Your task to perform on an android device: turn on improve location accuracy Image 0: 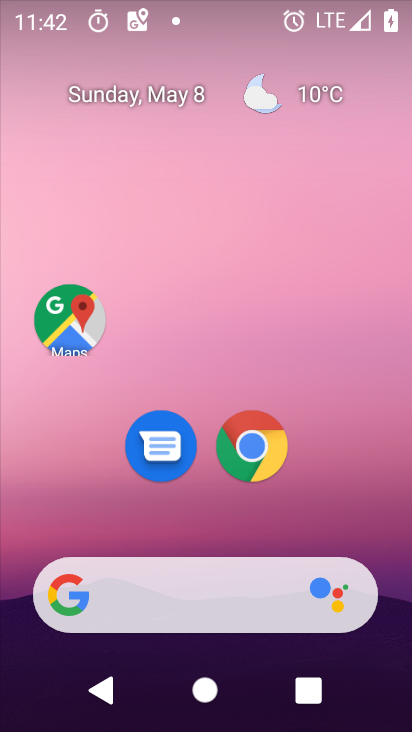
Step 0: drag from (376, 556) to (349, 1)
Your task to perform on an android device: turn on improve location accuracy Image 1: 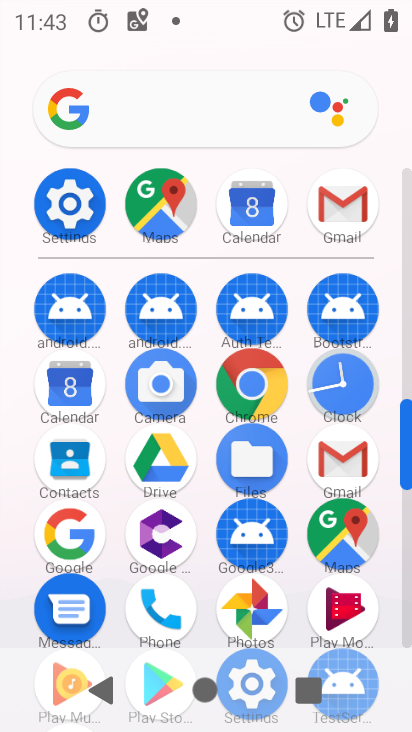
Step 1: click (72, 209)
Your task to perform on an android device: turn on improve location accuracy Image 2: 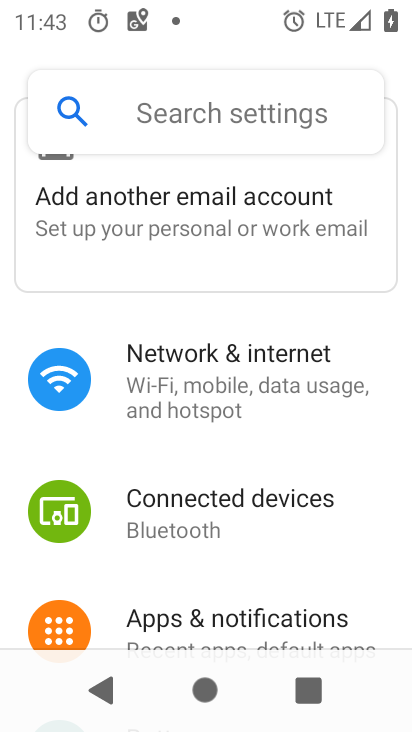
Step 2: drag from (369, 544) to (369, 145)
Your task to perform on an android device: turn on improve location accuracy Image 3: 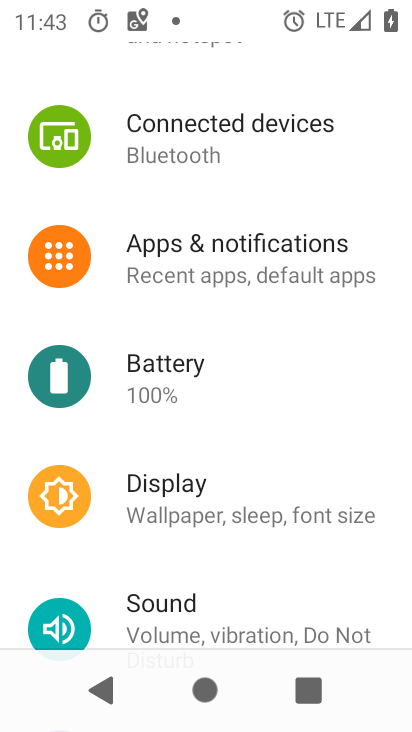
Step 3: drag from (366, 456) to (360, 176)
Your task to perform on an android device: turn on improve location accuracy Image 4: 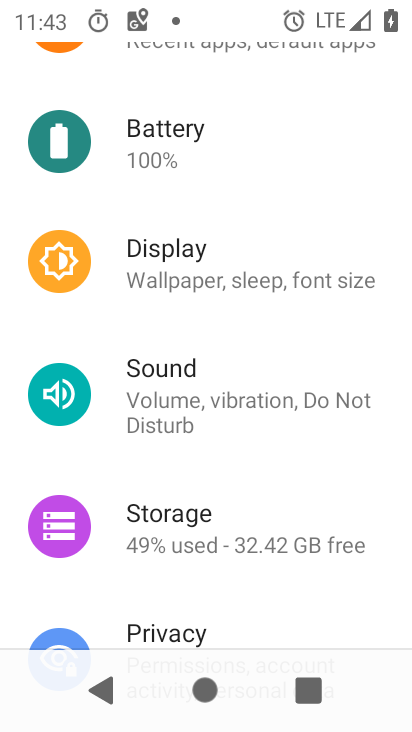
Step 4: drag from (297, 502) to (316, 181)
Your task to perform on an android device: turn on improve location accuracy Image 5: 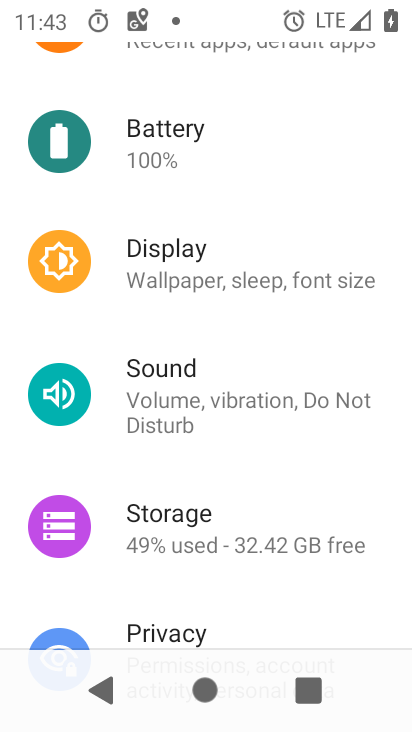
Step 5: drag from (274, 551) to (259, 205)
Your task to perform on an android device: turn on improve location accuracy Image 6: 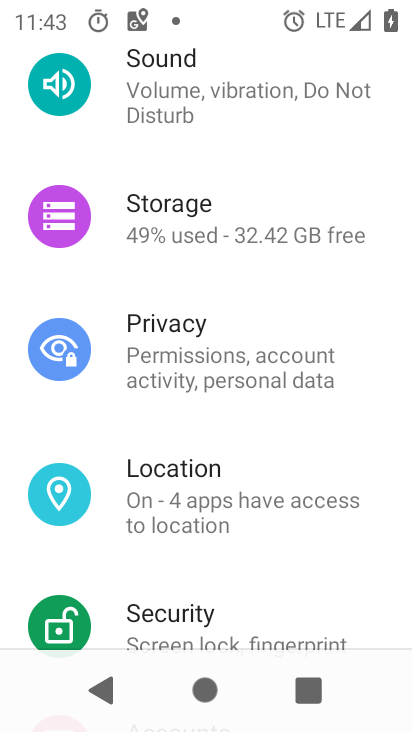
Step 6: drag from (249, 486) to (249, 246)
Your task to perform on an android device: turn on improve location accuracy Image 7: 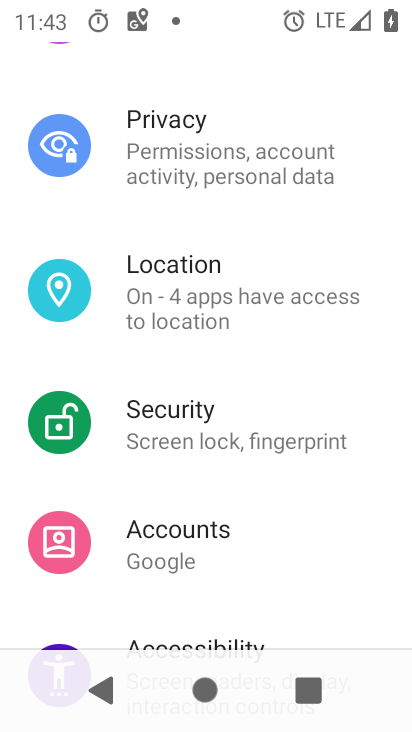
Step 7: click (181, 310)
Your task to perform on an android device: turn on improve location accuracy Image 8: 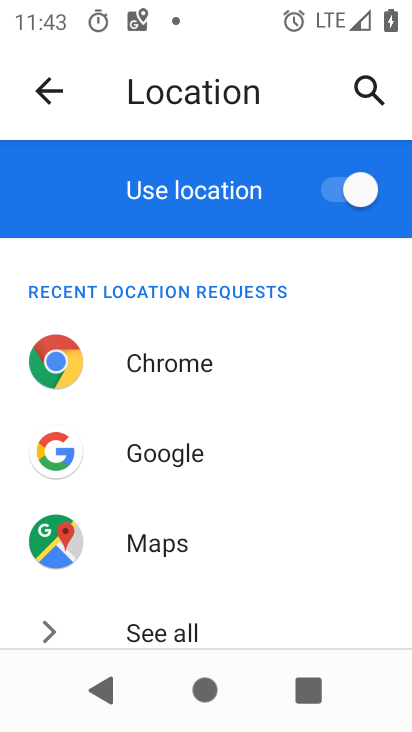
Step 8: drag from (287, 553) to (250, 282)
Your task to perform on an android device: turn on improve location accuracy Image 9: 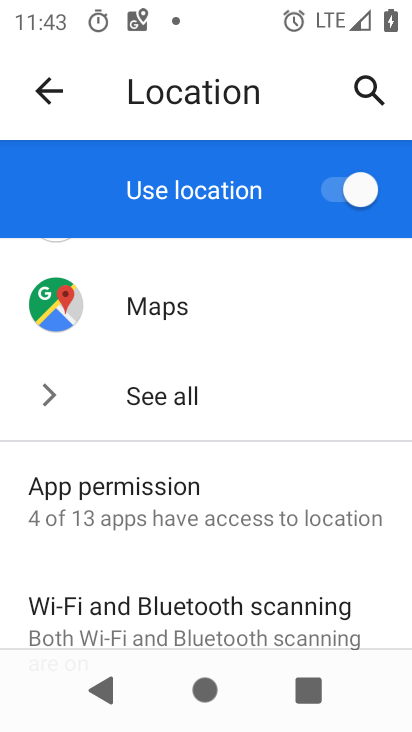
Step 9: drag from (223, 510) to (223, 129)
Your task to perform on an android device: turn on improve location accuracy Image 10: 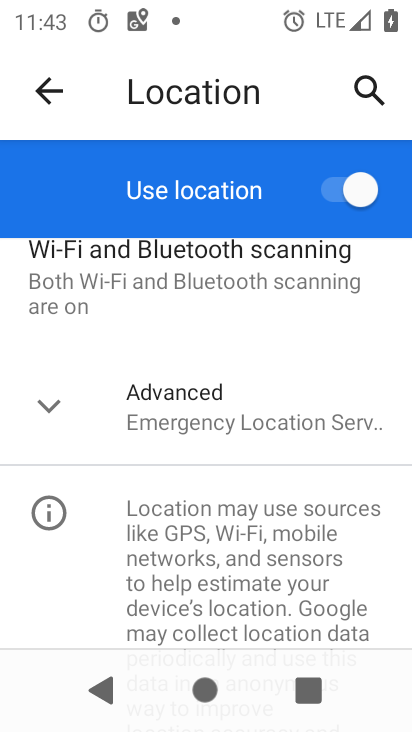
Step 10: drag from (207, 510) to (208, 267)
Your task to perform on an android device: turn on improve location accuracy Image 11: 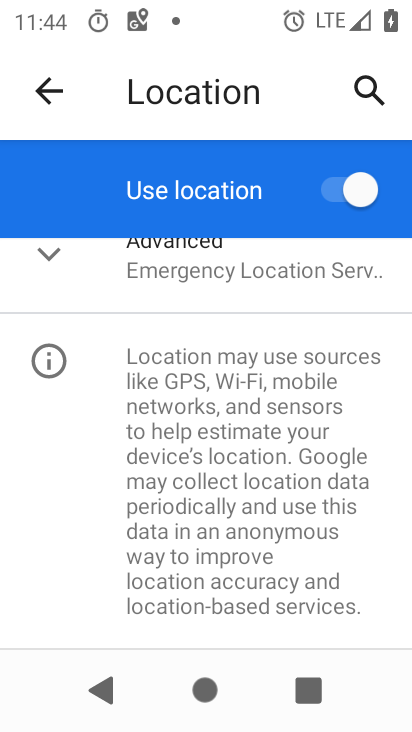
Step 11: drag from (207, 497) to (211, 143)
Your task to perform on an android device: turn on improve location accuracy Image 12: 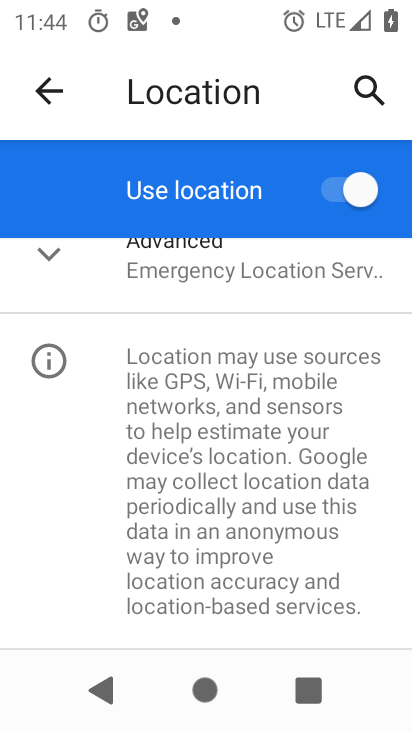
Step 12: click (53, 255)
Your task to perform on an android device: turn on improve location accuracy Image 13: 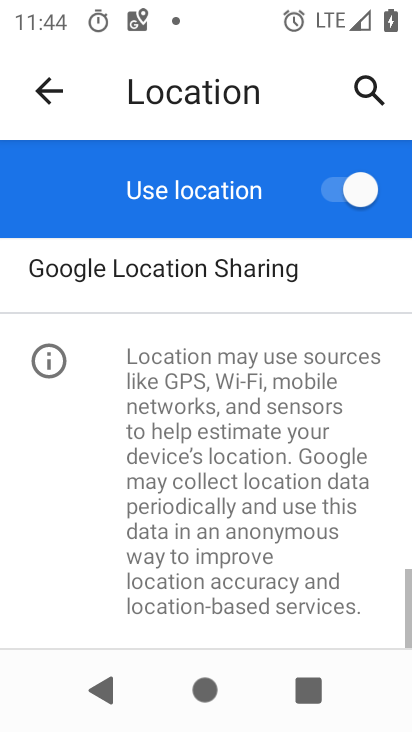
Step 13: drag from (133, 302) to (171, 643)
Your task to perform on an android device: turn on improve location accuracy Image 14: 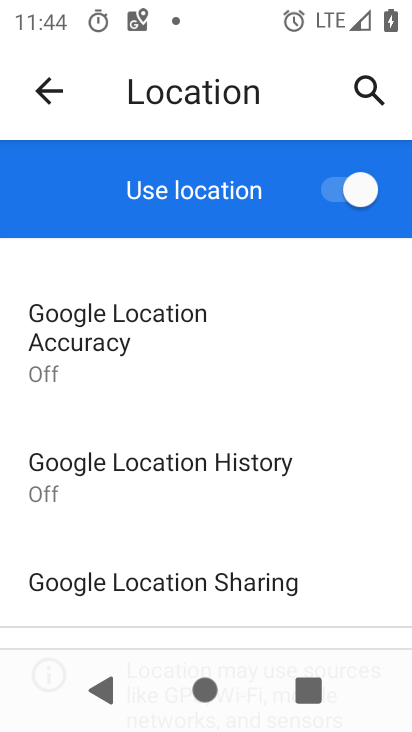
Step 14: click (72, 356)
Your task to perform on an android device: turn on improve location accuracy Image 15: 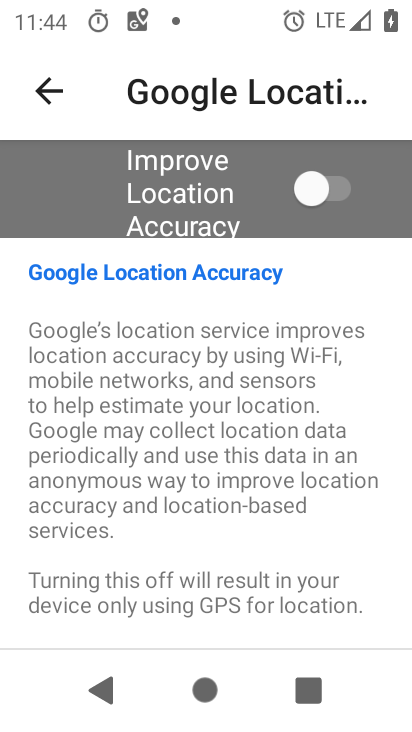
Step 15: click (324, 181)
Your task to perform on an android device: turn on improve location accuracy Image 16: 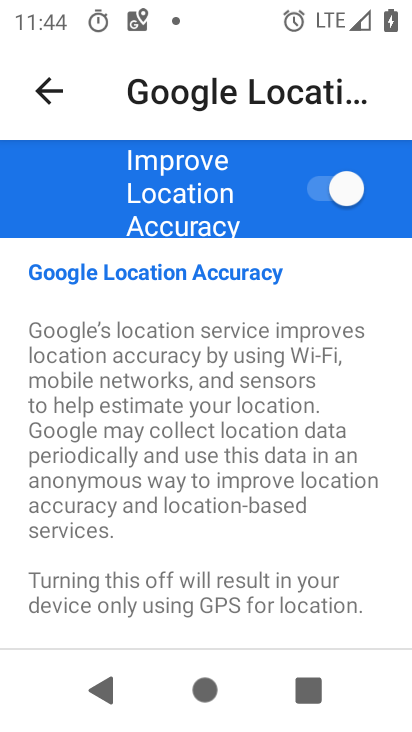
Step 16: task complete